Your task to perform on an android device: Open privacy settings Image 0: 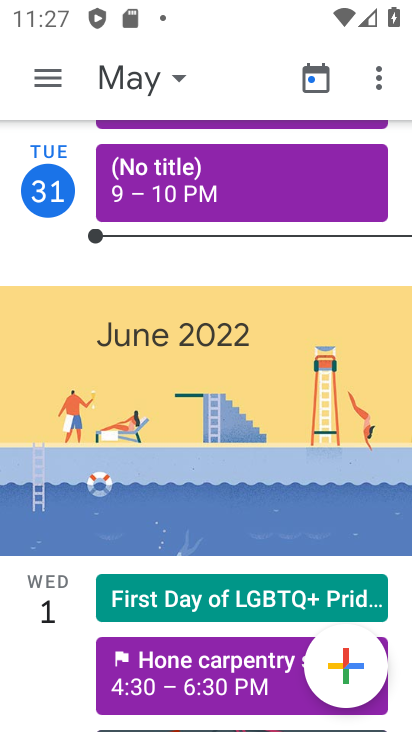
Step 0: press home button
Your task to perform on an android device: Open privacy settings Image 1: 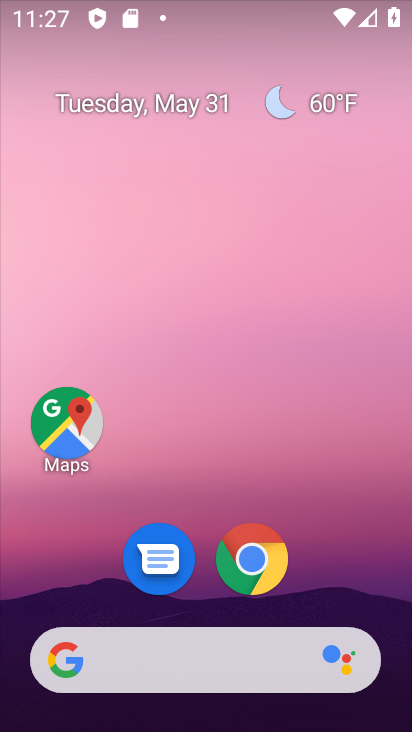
Step 1: drag from (386, 652) to (304, 138)
Your task to perform on an android device: Open privacy settings Image 2: 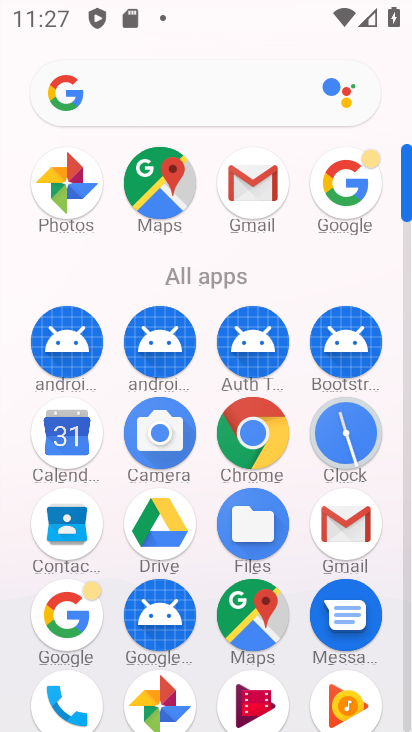
Step 2: drag from (302, 662) to (270, 68)
Your task to perform on an android device: Open privacy settings Image 3: 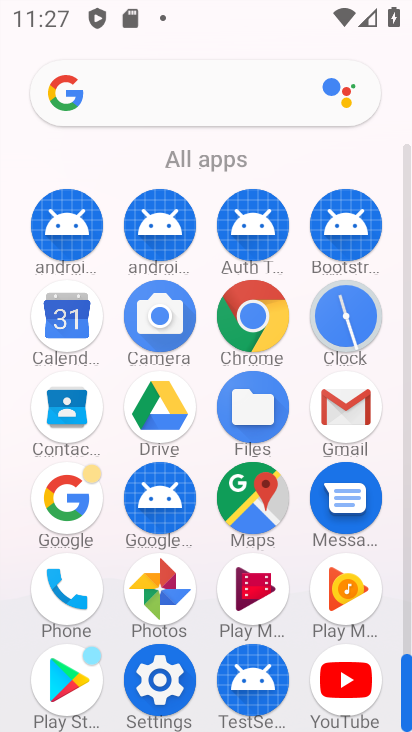
Step 3: click (175, 675)
Your task to perform on an android device: Open privacy settings Image 4: 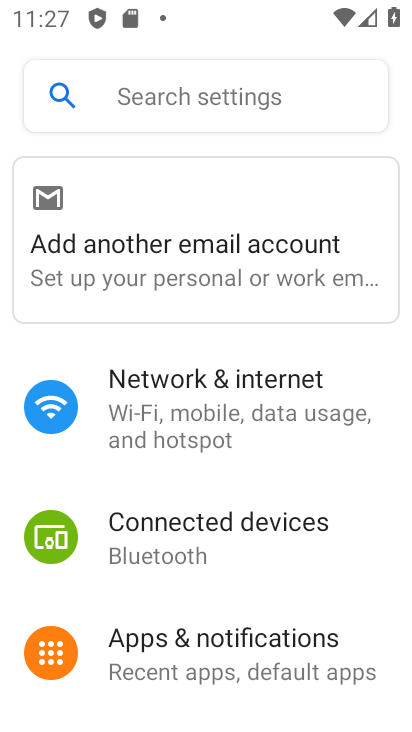
Step 4: drag from (225, 658) to (179, 6)
Your task to perform on an android device: Open privacy settings Image 5: 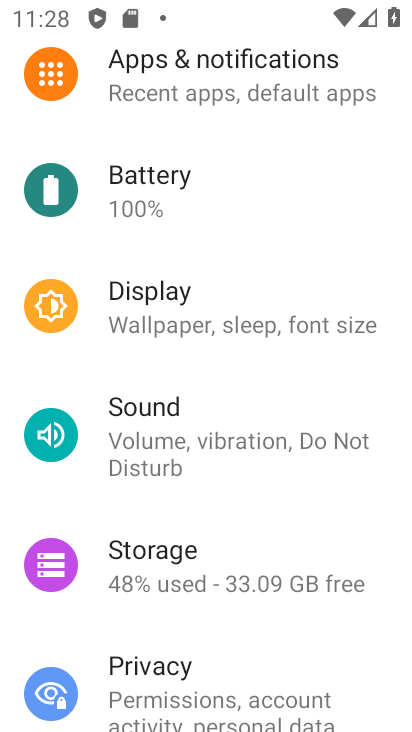
Step 5: click (172, 685)
Your task to perform on an android device: Open privacy settings Image 6: 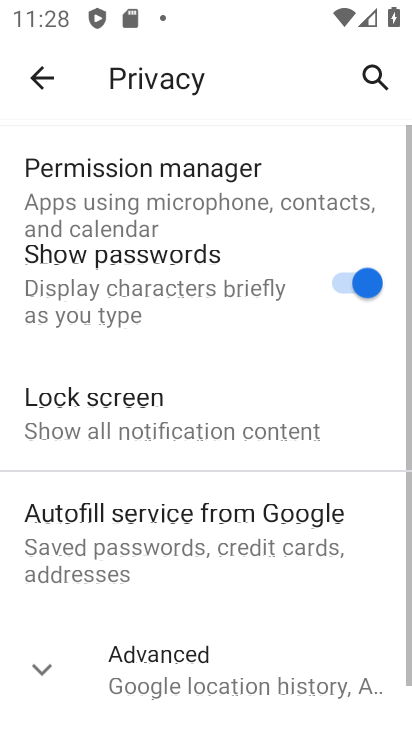
Step 6: task complete